Your task to perform on an android device: allow cookies in the chrome app Image 0: 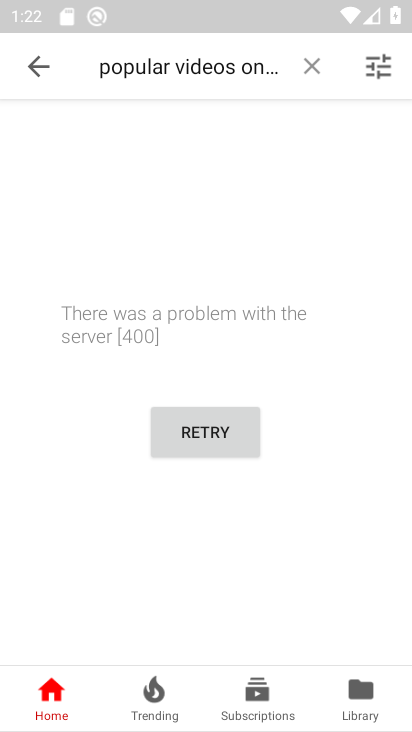
Step 0: press home button
Your task to perform on an android device: allow cookies in the chrome app Image 1: 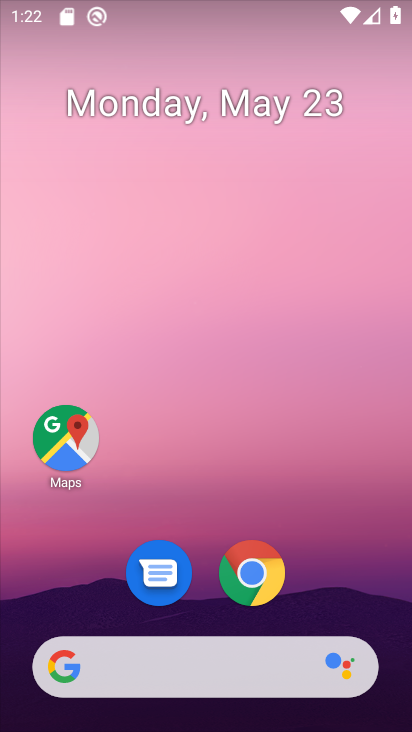
Step 1: click (255, 574)
Your task to perform on an android device: allow cookies in the chrome app Image 2: 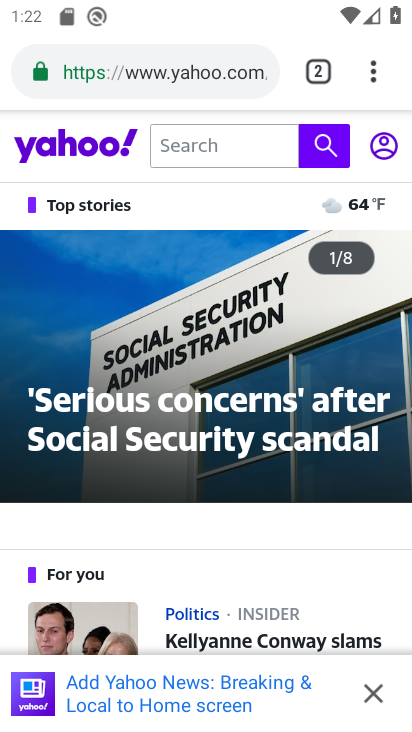
Step 2: click (382, 71)
Your task to perform on an android device: allow cookies in the chrome app Image 3: 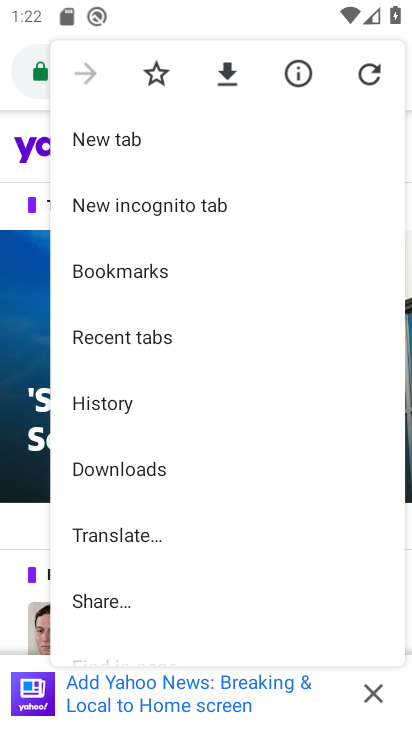
Step 3: drag from (201, 581) to (187, 256)
Your task to perform on an android device: allow cookies in the chrome app Image 4: 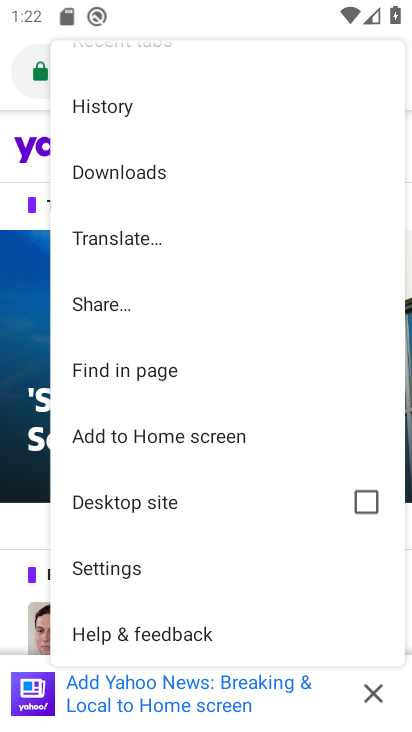
Step 4: click (112, 569)
Your task to perform on an android device: allow cookies in the chrome app Image 5: 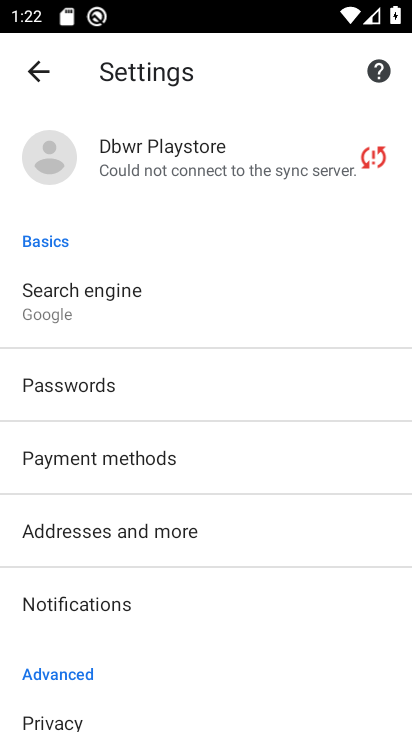
Step 5: drag from (227, 663) to (214, 280)
Your task to perform on an android device: allow cookies in the chrome app Image 6: 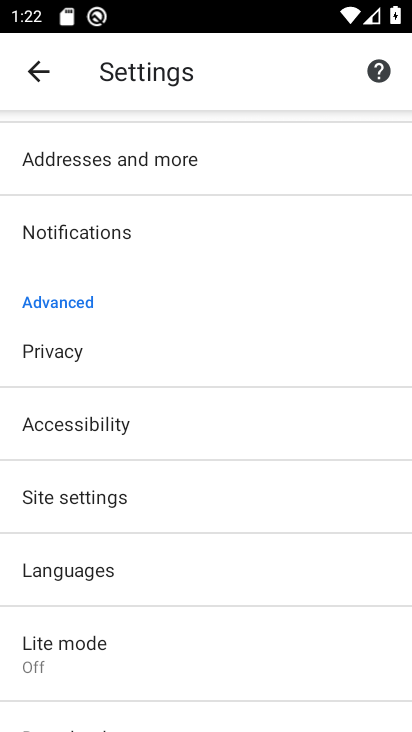
Step 6: click (104, 493)
Your task to perform on an android device: allow cookies in the chrome app Image 7: 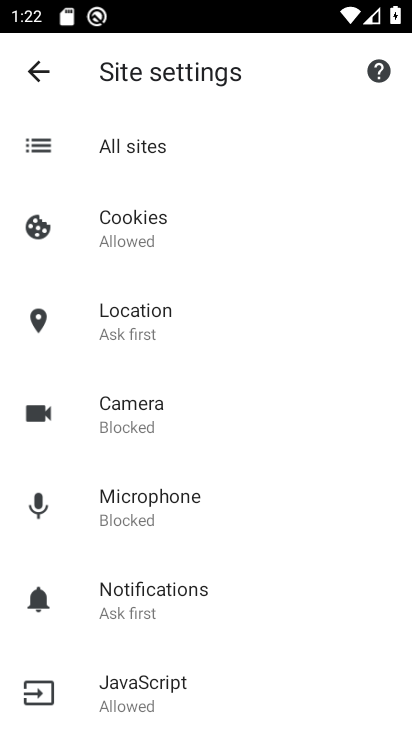
Step 7: click (162, 232)
Your task to perform on an android device: allow cookies in the chrome app Image 8: 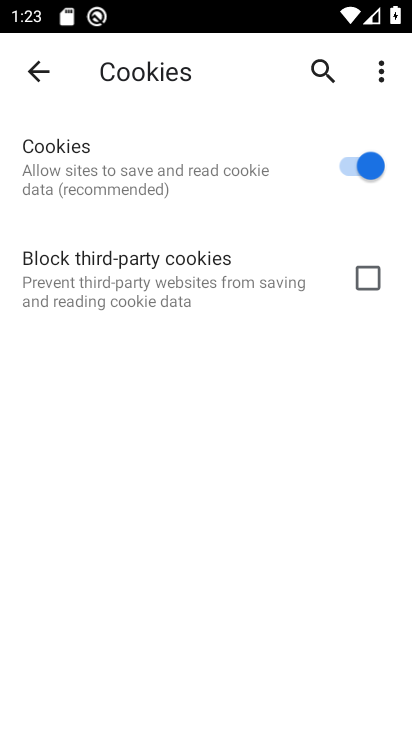
Step 8: task complete